Your task to perform on an android device: show emergency info Image 0: 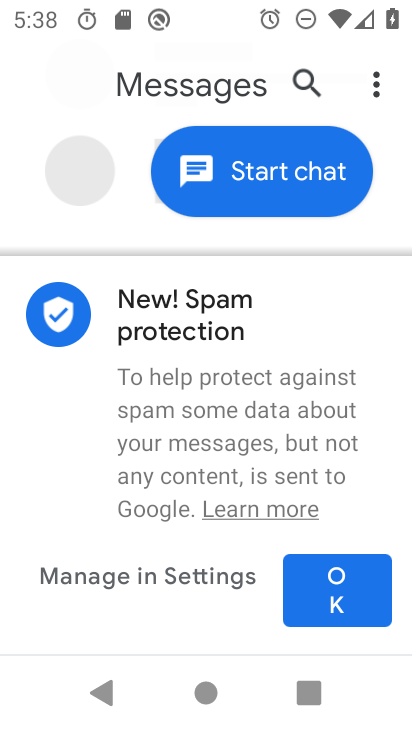
Step 0: press home button
Your task to perform on an android device: show emergency info Image 1: 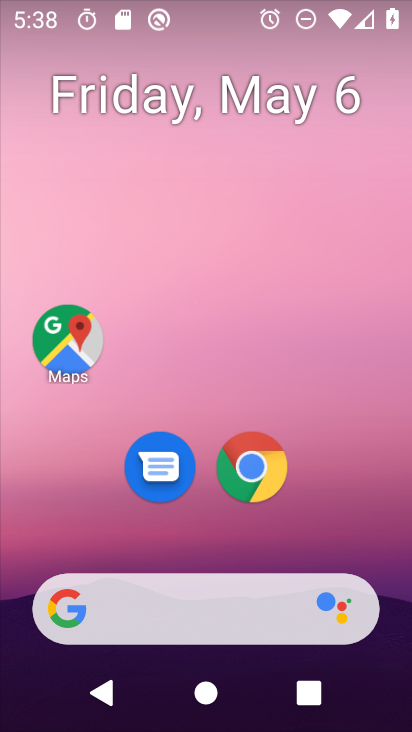
Step 1: drag from (318, 501) to (254, 1)
Your task to perform on an android device: show emergency info Image 2: 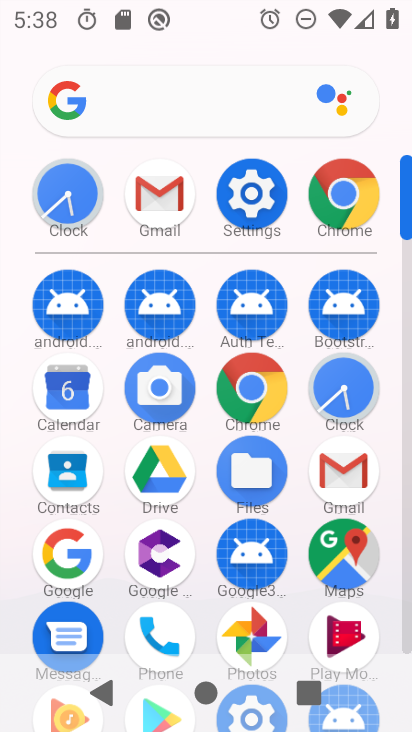
Step 2: click (258, 185)
Your task to perform on an android device: show emergency info Image 3: 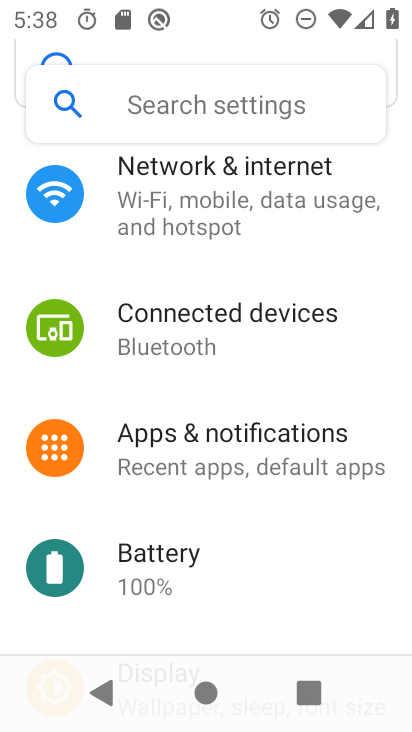
Step 3: drag from (283, 519) to (219, 72)
Your task to perform on an android device: show emergency info Image 4: 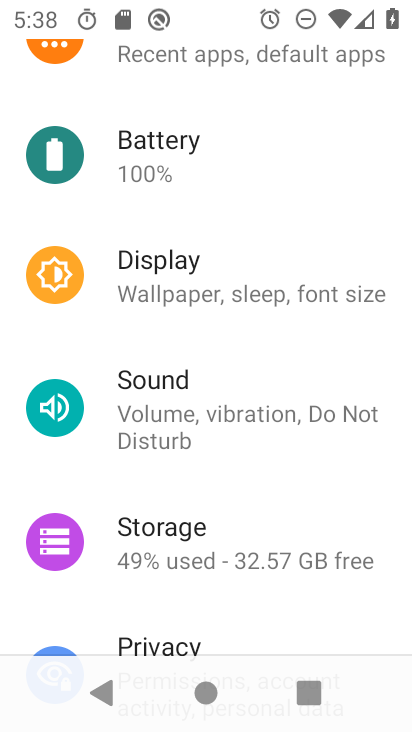
Step 4: drag from (194, 589) to (190, 146)
Your task to perform on an android device: show emergency info Image 5: 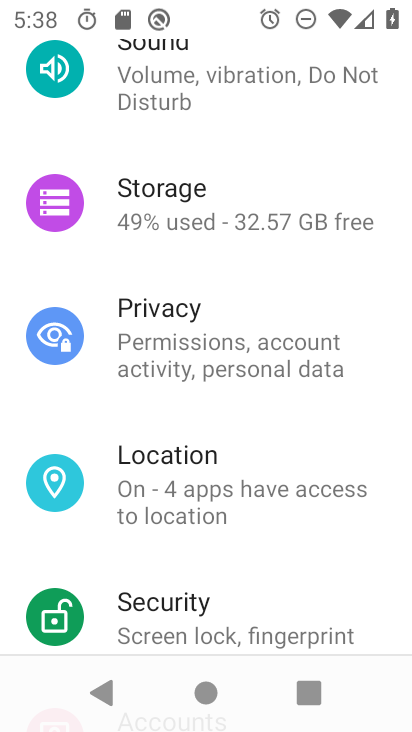
Step 5: drag from (234, 594) to (222, 168)
Your task to perform on an android device: show emergency info Image 6: 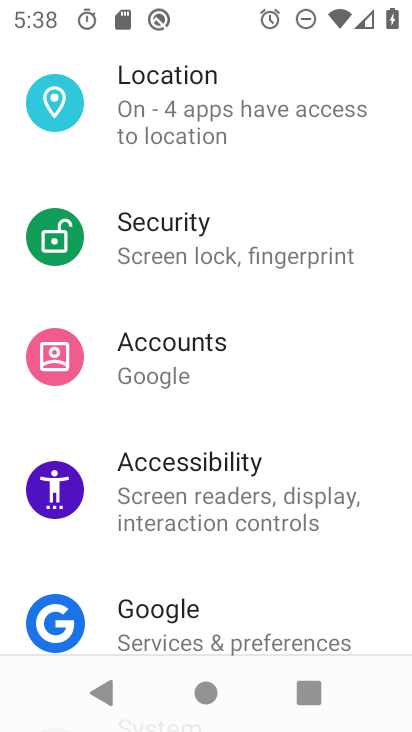
Step 6: drag from (170, 550) to (153, 192)
Your task to perform on an android device: show emergency info Image 7: 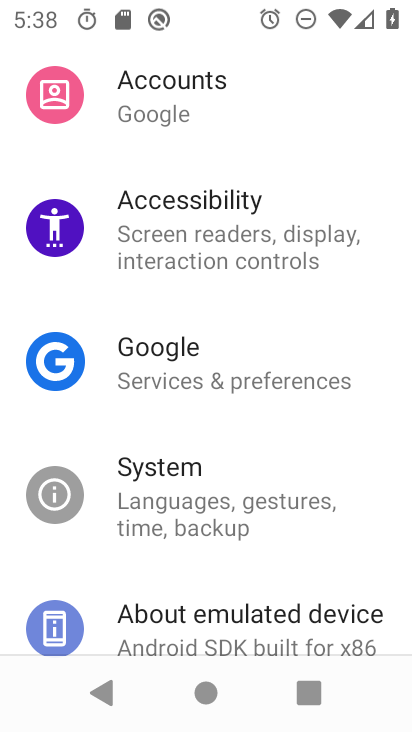
Step 7: click (205, 618)
Your task to perform on an android device: show emergency info Image 8: 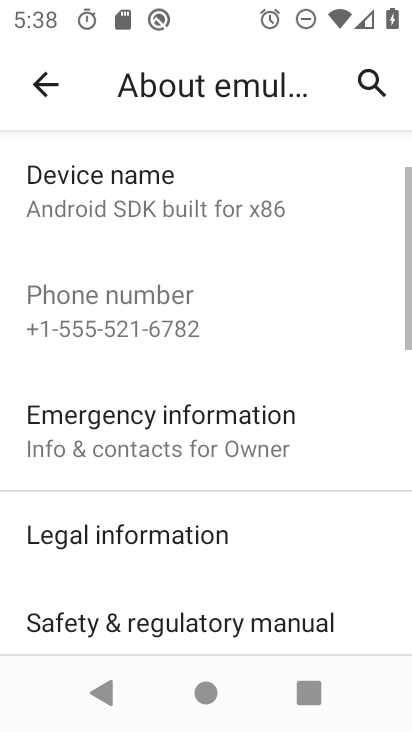
Step 8: task complete